Your task to perform on an android device: open chrome and create a bookmark for the current page Image 0: 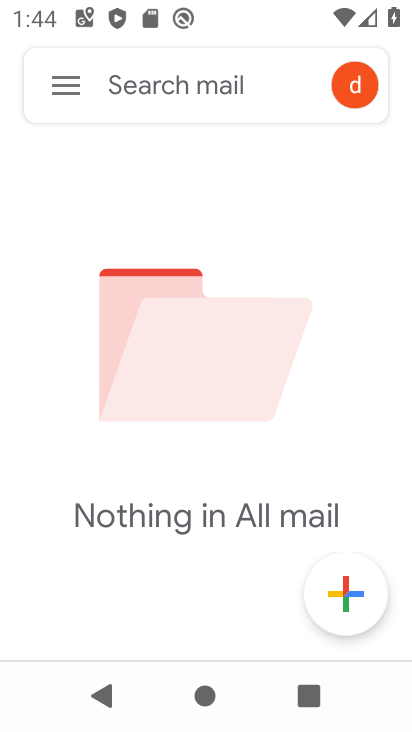
Step 0: press home button
Your task to perform on an android device: open chrome and create a bookmark for the current page Image 1: 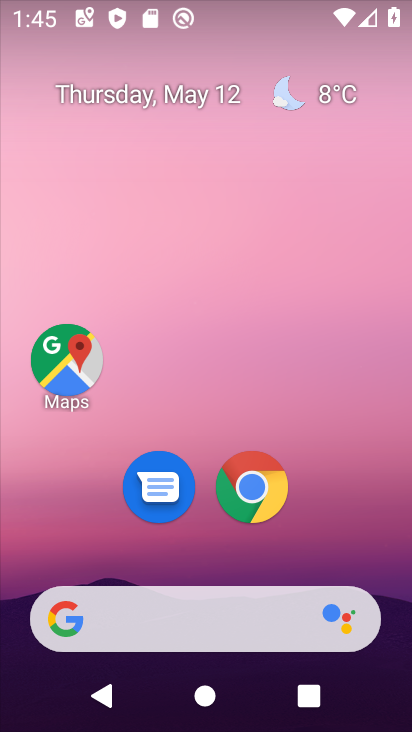
Step 1: click (261, 477)
Your task to perform on an android device: open chrome and create a bookmark for the current page Image 2: 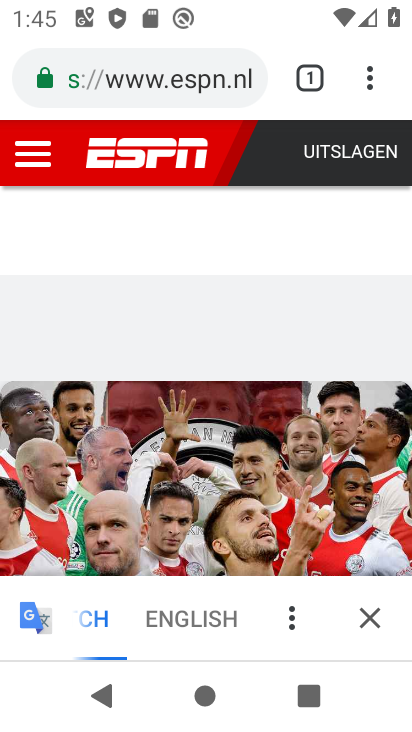
Step 2: click (366, 84)
Your task to perform on an android device: open chrome and create a bookmark for the current page Image 3: 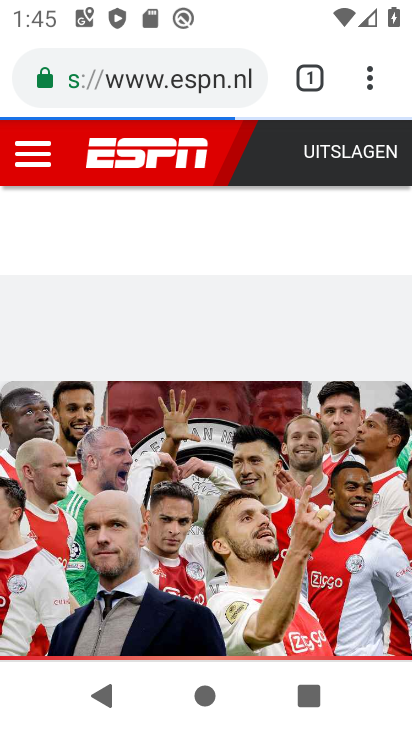
Step 3: click (366, 84)
Your task to perform on an android device: open chrome and create a bookmark for the current page Image 4: 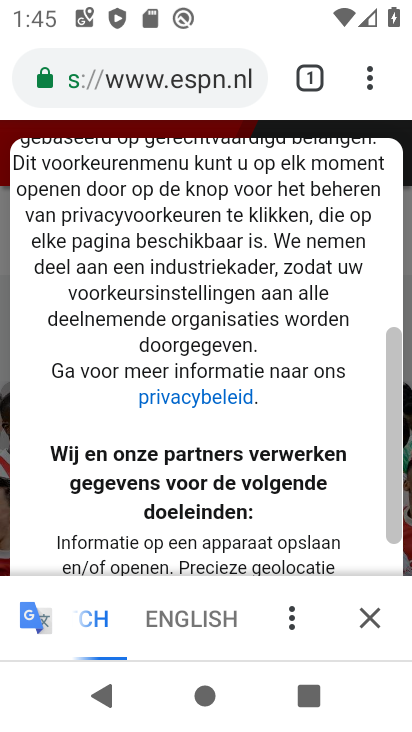
Step 4: click (368, 94)
Your task to perform on an android device: open chrome and create a bookmark for the current page Image 5: 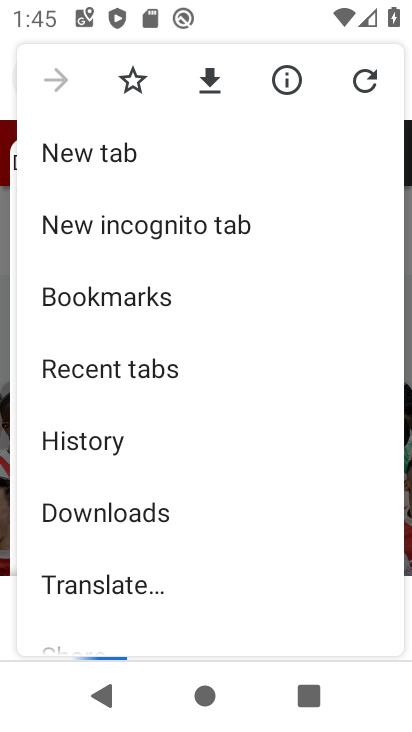
Step 5: click (130, 92)
Your task to perform on an android device: open chrome and create a bookmark for the current page Image 6: 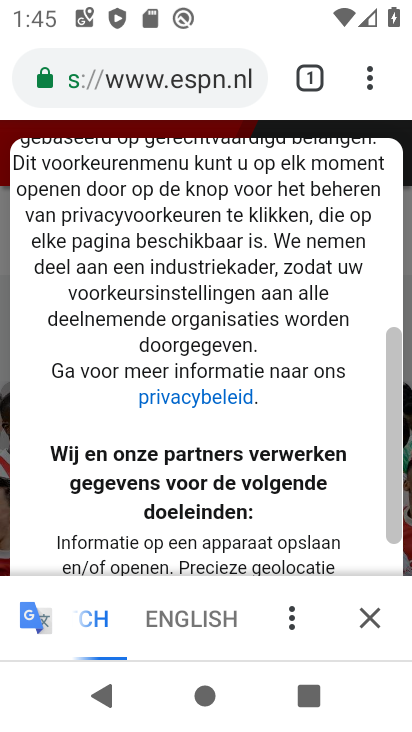
Step 6: task complete